Your task to perform on an android device: Open Yahoo.com Image 0: 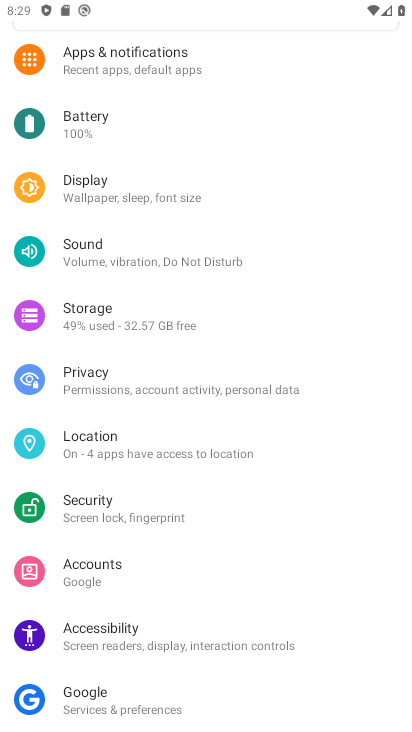
Step 0: press home button
Your task to perform on an android device: Open Yahoo.com Image 1: 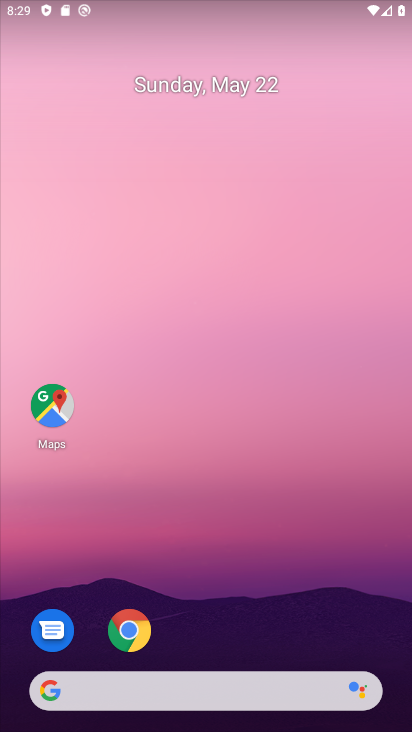
Step 1: drag from (279, 616) to (178, 16)
Your task to perform on an android device: Open Yahoo.com Image 2: 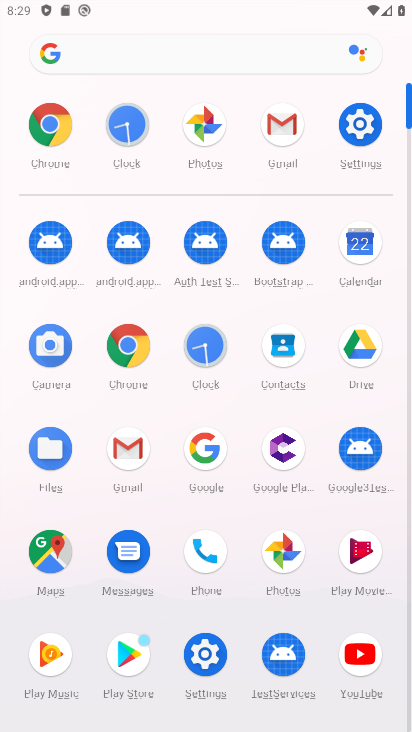
Step 2: click (218, 57)
Your task to perform on an android device: Open Yahoo.com Image 3: 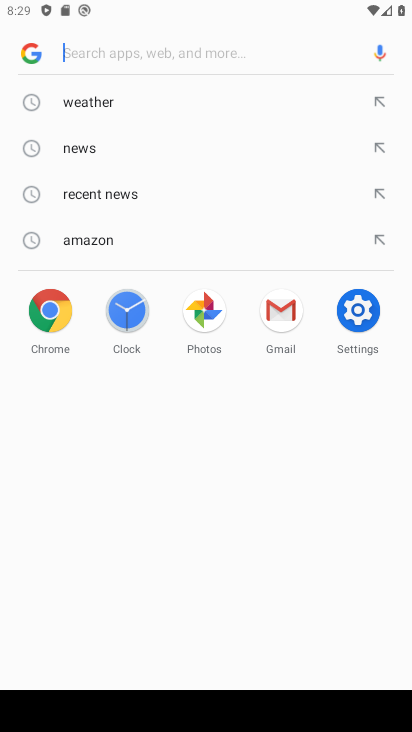
Step 3: type "yahoo.com"
Your task to perform on an android device: Open Yahoo.com Image 4: 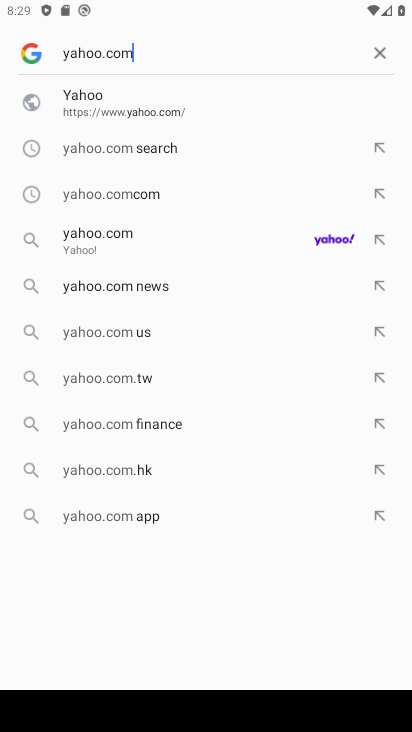
Step 4: click (120, 90)
Your task to perform on an android device: Open Yahoo.com Image 5: 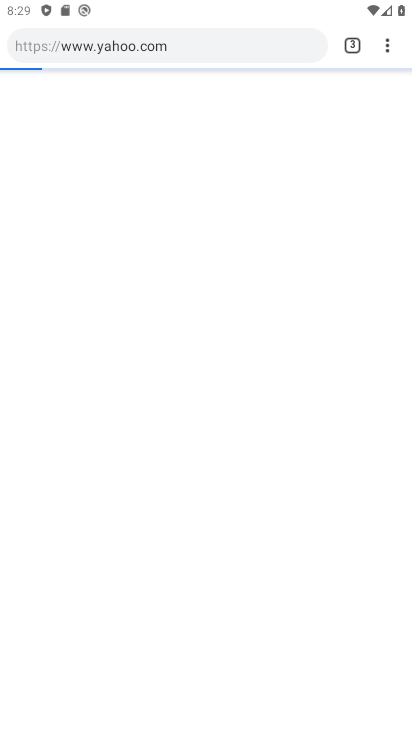
Step 5: task complete